Your task to perform on an android device: turn off improve location accuracy Image 0: 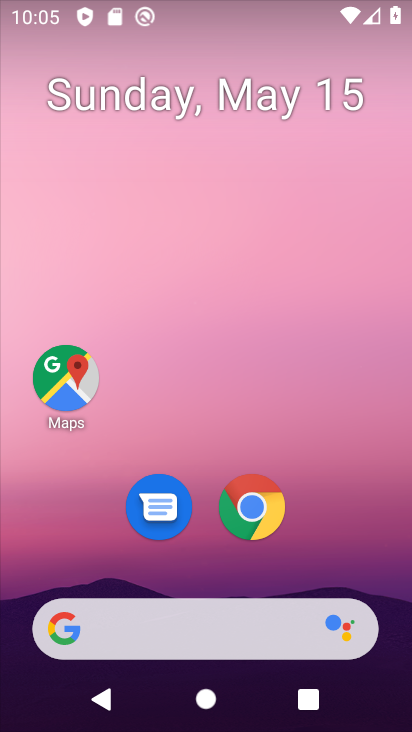
Step 0: drag from (175, 585) to (255, 79)
Your task to perform on an android device: turn off improve location accuracy Image 1: 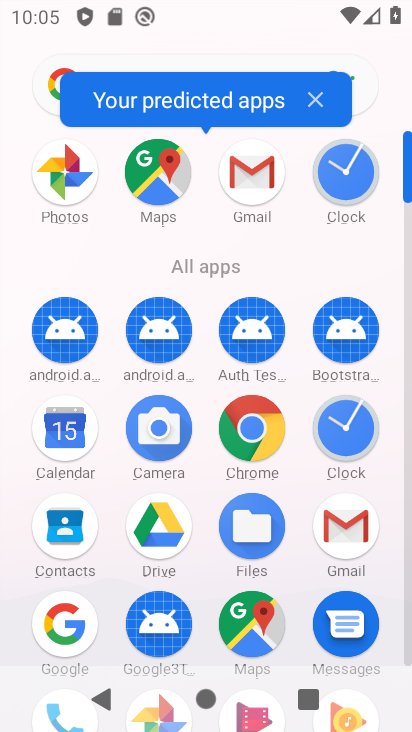
Step 1: drag from (196, 684) to (303, 372)
Your task to perform on an android device: turn off improve location accuracy Image 2: 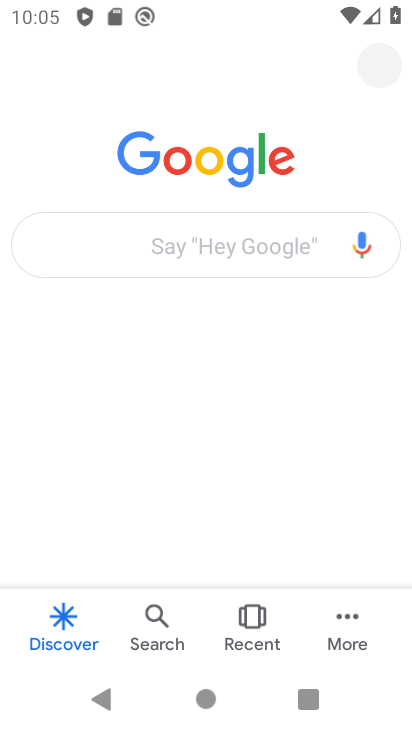
Step 2: press back button
Your task to perform on an android device: turn off improve location accuracy Image 3: 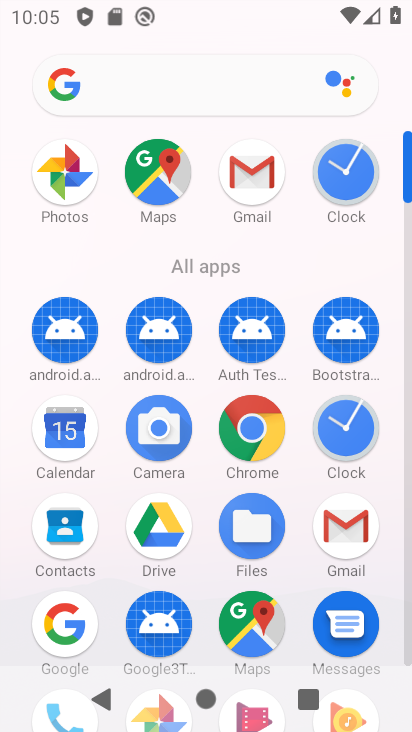
Step 3: drag from (211, 641) to (285, 293)
Your task to perform on an android device: turn off improve location accuracy Image 4: 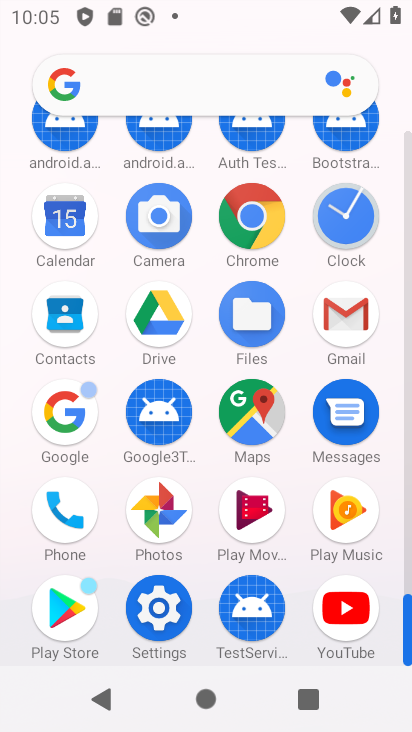
Step 4: click (157, 612)
Your task to perform on an android device: turn off improve location accuracy Image 5: 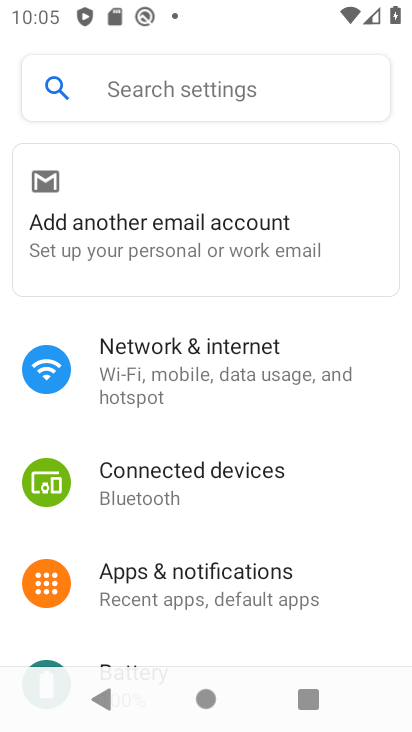
Step 5: drag from (243, 604) to (316, 262)
Your task to perform on an android device: turn off improve location accuracy Image 6: 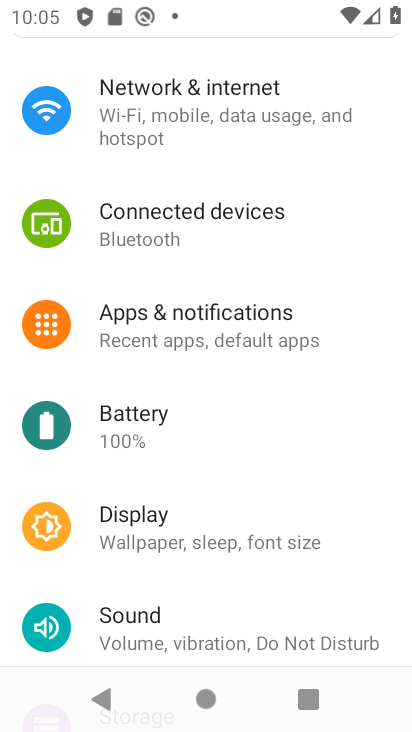
Step 6: drag from (189, 601) to (305, 236)
Your task to perform on an android device: turn off improve location accuracy Image 7: 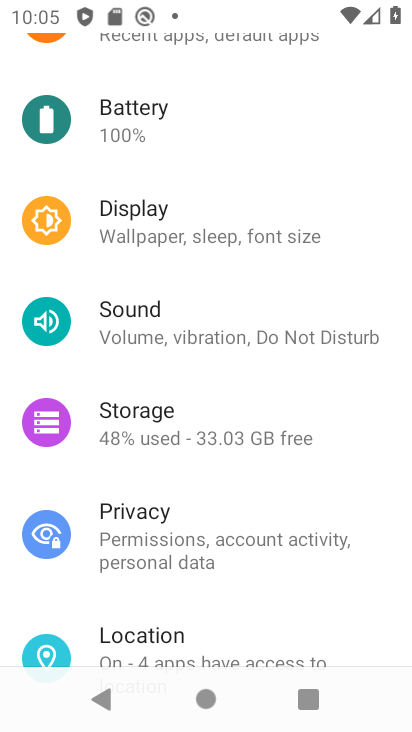
Step 7: drag from (229, 625) to (317, 339)
Your task to perform on an android device: turn off improve location accuracy Image 8: 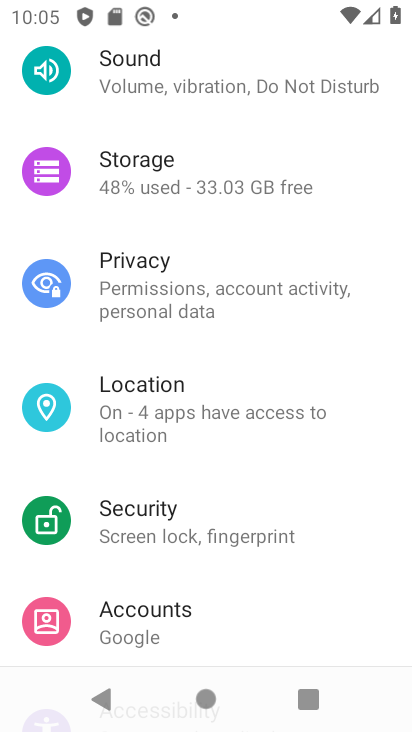
Step 8: click (149, 411)
Your task to perform on an android device: turn off improve location accuracy Image 9: 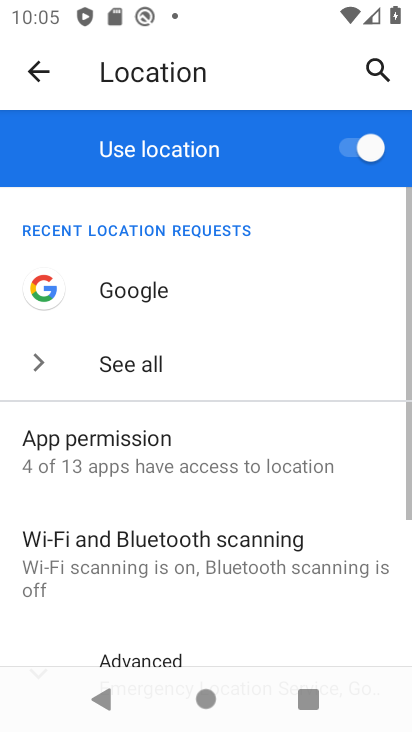
Step 9: drag from (209, 591) to (285, 272)
Your task to perform on an android device: turn off improve location accuracy Image 10: 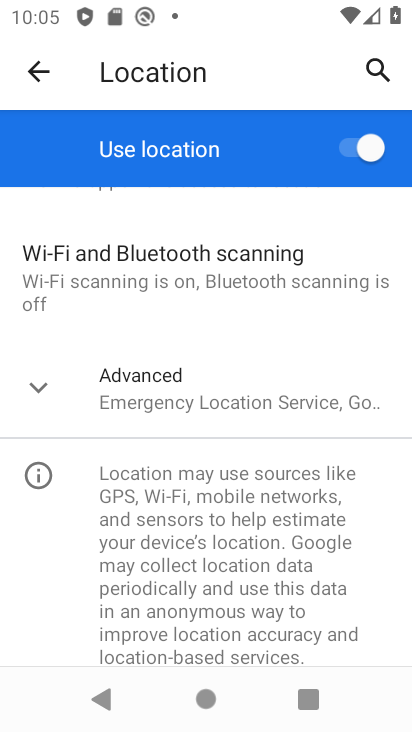
Step 10: click (231, 405)
Your task to perform on an android device: turn off improve location accuracy Image 11: 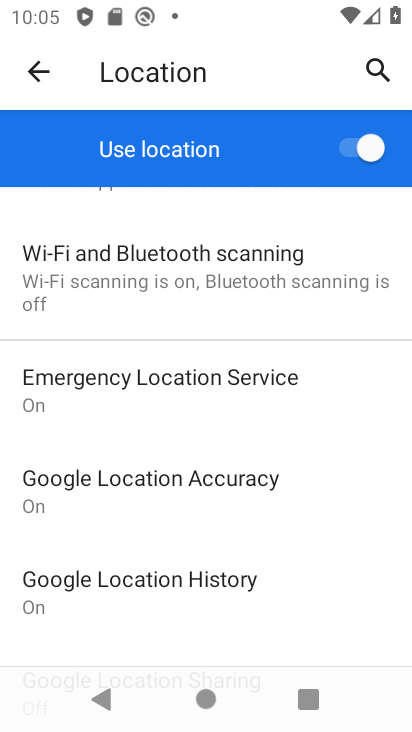
Step 11: click (260, 505)
Your task to perform on an android device: turn off improve location accuracy Image 12: 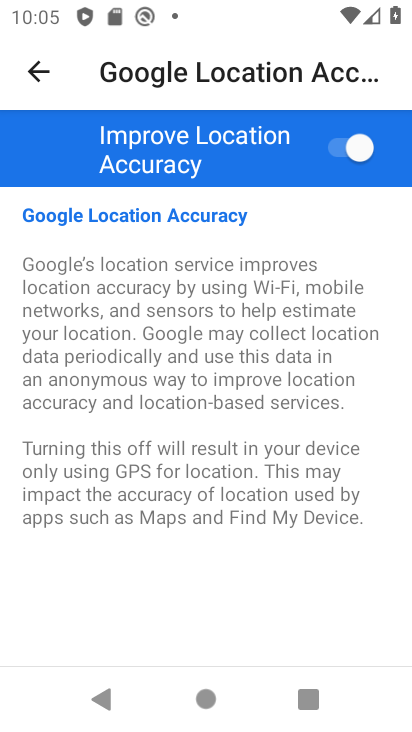
Step 12: click (338, 148)
Your task to perform on an android device: turn off improve location accuracy Image 13: 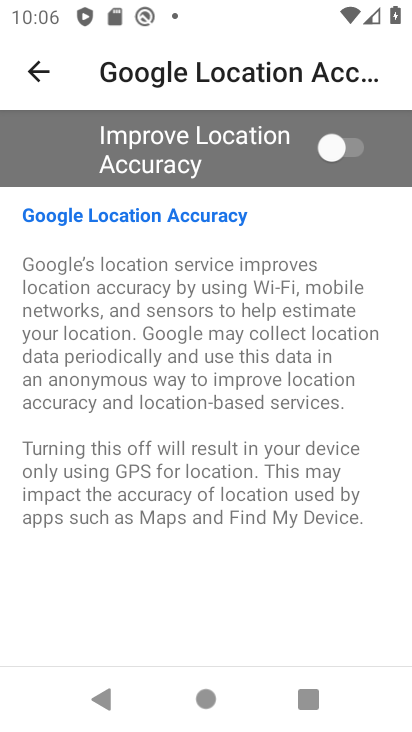
Step 13: task complete